Your task to perform on an android device: toggle notifications settings in the gmail app Image 0: 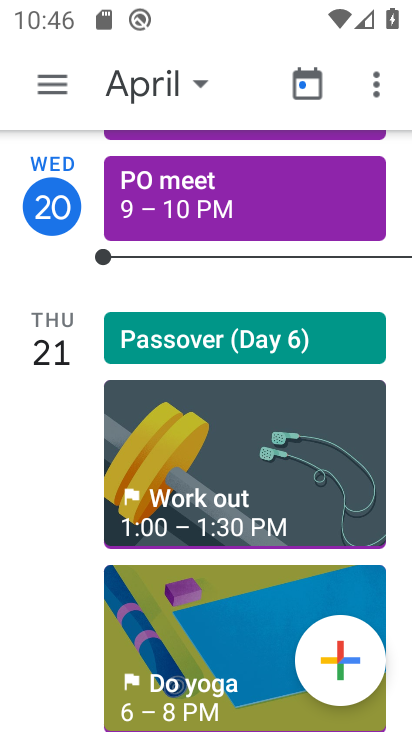
Step 0: press home button
Your task to perform on an android device: toggle notifications settings in the gmail app Image 1: 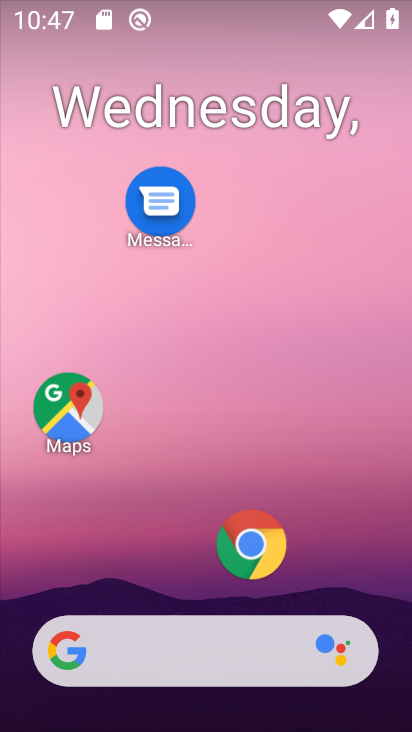
Step 1: drag from (190, 582) to (206, 179)
Your task to perform on an android device: toggle notifications settings in the gmail app Image 2: 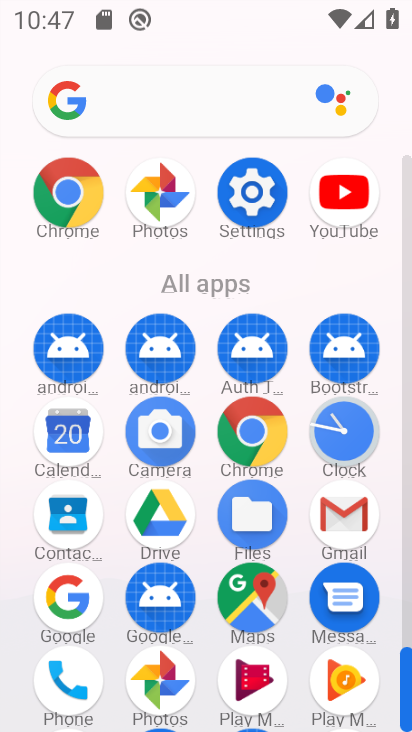
Step 2: click (328, 498)
Your task to perform on an android device: toggle notifications settings in the gmail app Image 3: 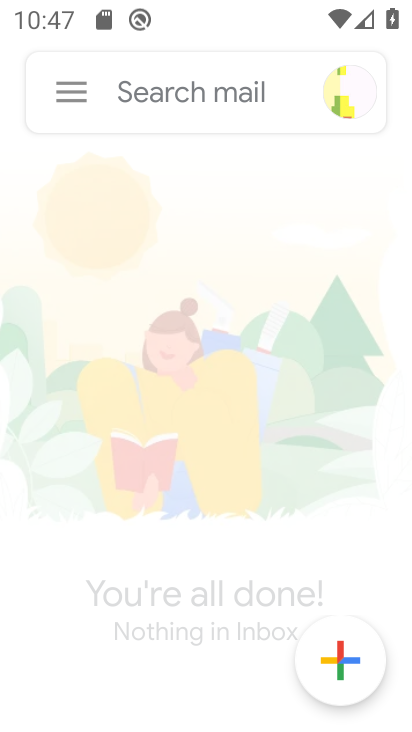
Step 3: click (76, 92)
Your task to perform on an android device: toggle notifications settings in the gmail app Image 4: 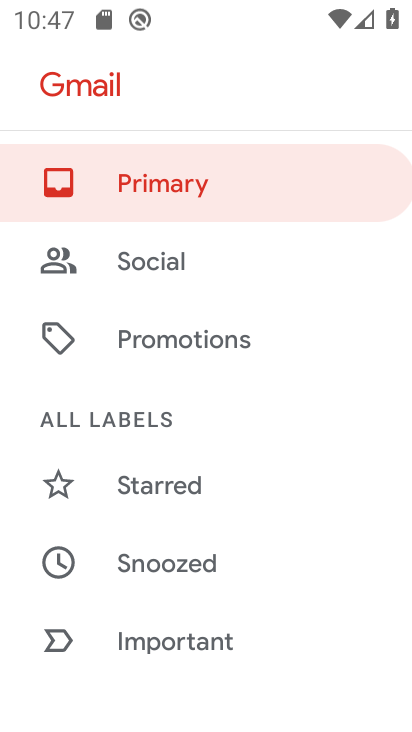
Step 4: drag from (220, 627) to (259, 280)
Your task to perform on an android device: toggle notifications settings in the gmail app Image 5: 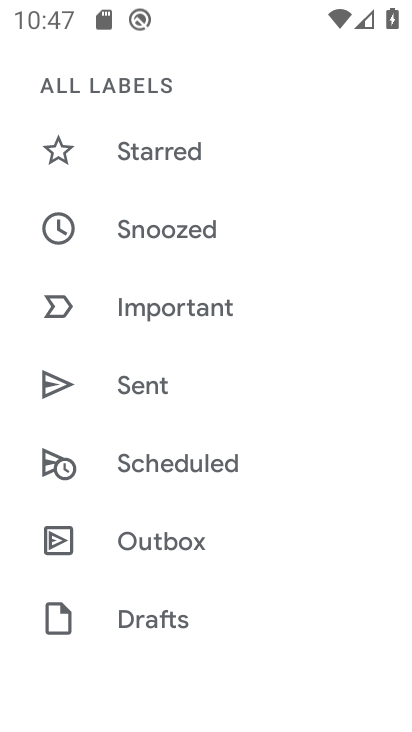
Step 5: drag from (261, 395) to (261, 256)
Your task to perform on an android device: toggle notifications settings in the gmail app Image 6: 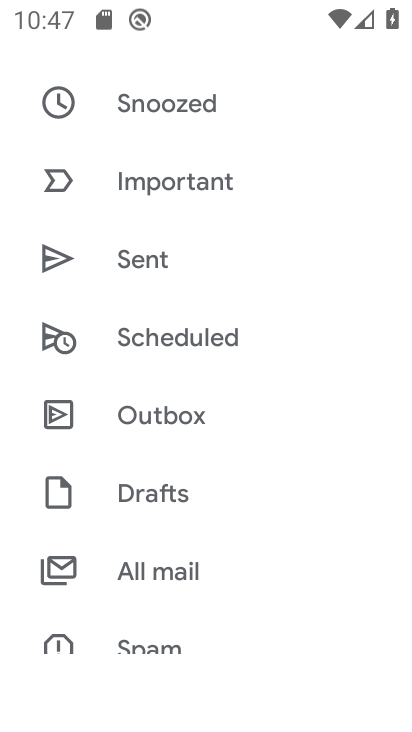
Step 6: drag from (243, 303) to (265, 264)
Your task to perform on an android device: toggle notifications settings in the gmail app Image 7: 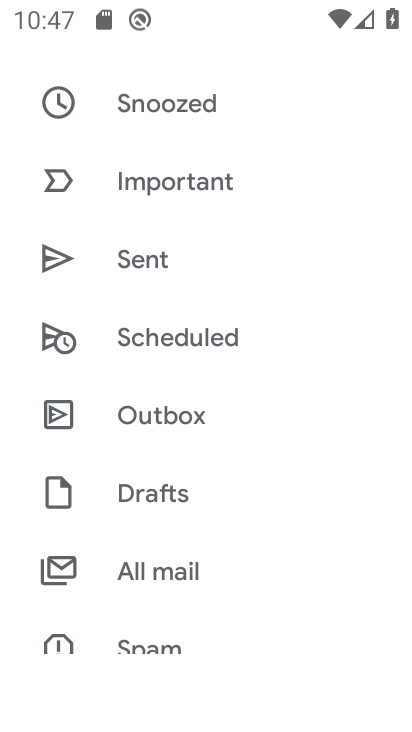
Step 7: drag from (254, 591) to (295, 266)
Your task to perform on an android device: toggle notifications settings in the gmail app Image 8: 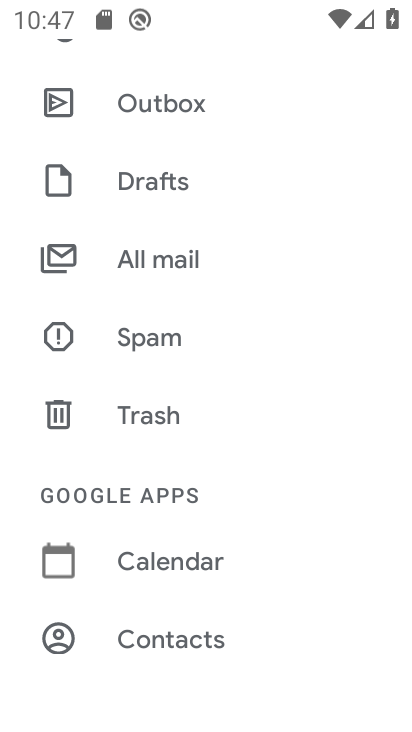
Step 8: drag from (198, 584) to (238, 242)
Your task to perform on an android device: toggle notifications settings in the gmail app Image 9: 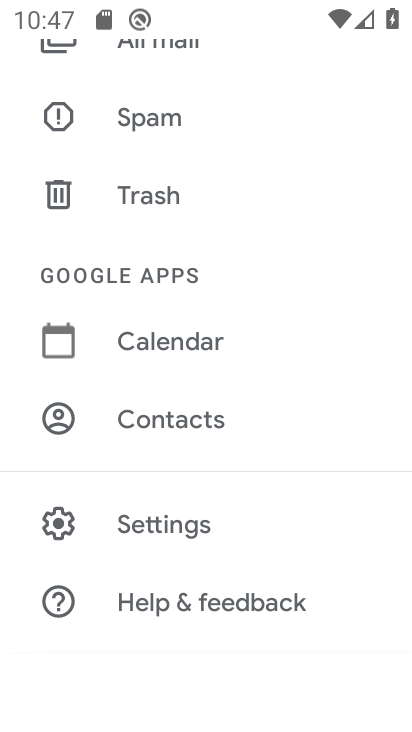
Step 9: click (195, 530)
Your task to perform on an android device: toggle notifications settings in the gmail app Image 10: 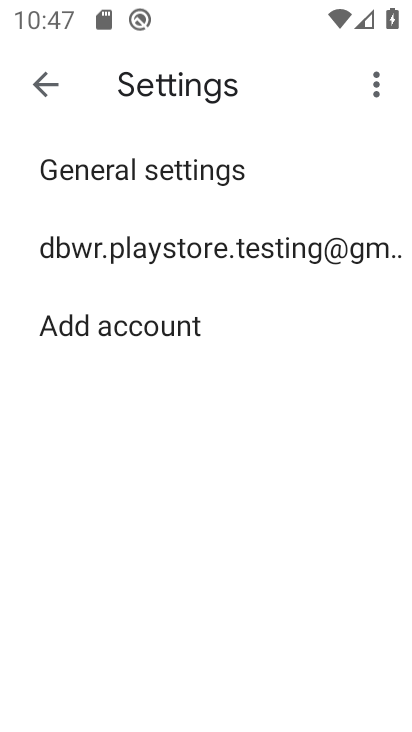
Step 10: click (152, 228)
Your task to perform on an android device: toggle notifications settings in the gmail app Image 11: 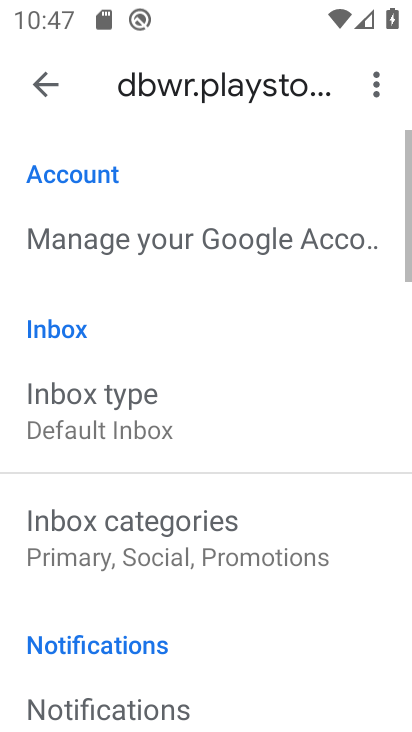
Step 11: drag from (194, 632) to (227, 304)
Your task to perform on an android device: toggle notifications settings in the gmail app Image 12: 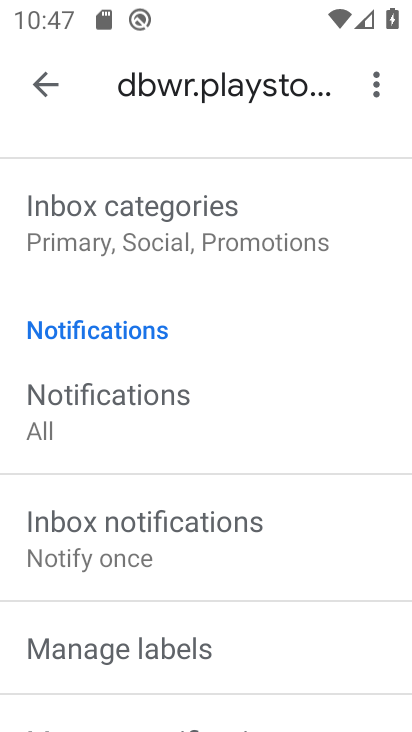
Step 12: drag from (213, 595) to (229, 373)
Your task to perform on an android device: toggle notifications settings in the gmail app Image 13: 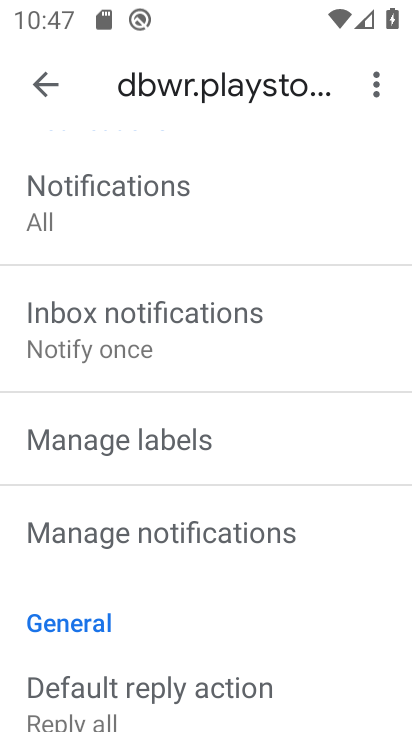
Step 13: drag from (183, 595) to (210, 504)
Your task to perform on an android device: toggle notifications settings in the gmail app Image 14: 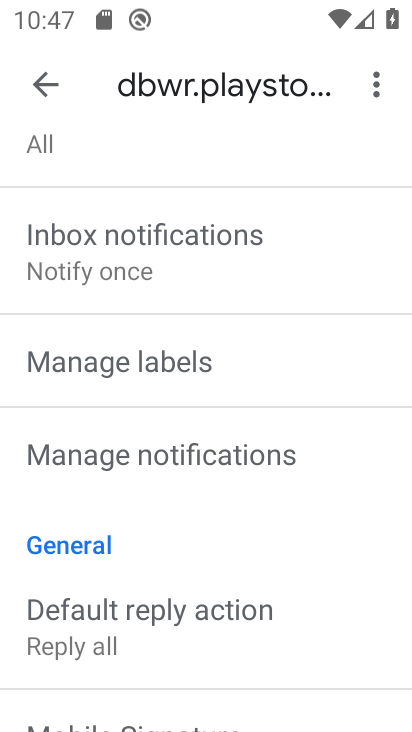
Step 14: click (188, 468)
Your task to perform on an android device: toggle notifications settings in the gmail app Image 15: 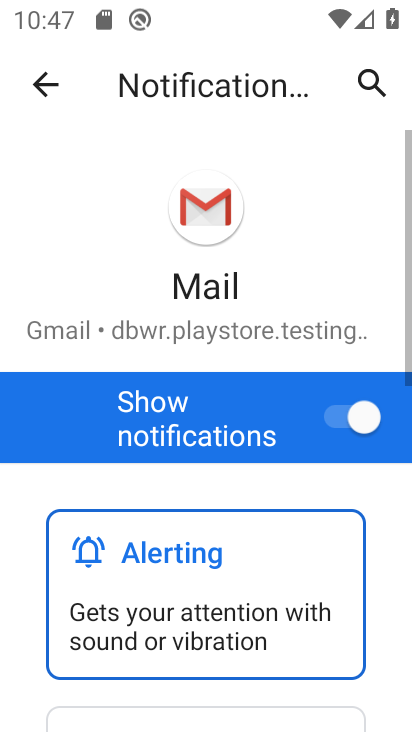
Step 15: click (340, 416)
Your task to perform on an android device: toggle notifications settings in the gmail app Image 16: 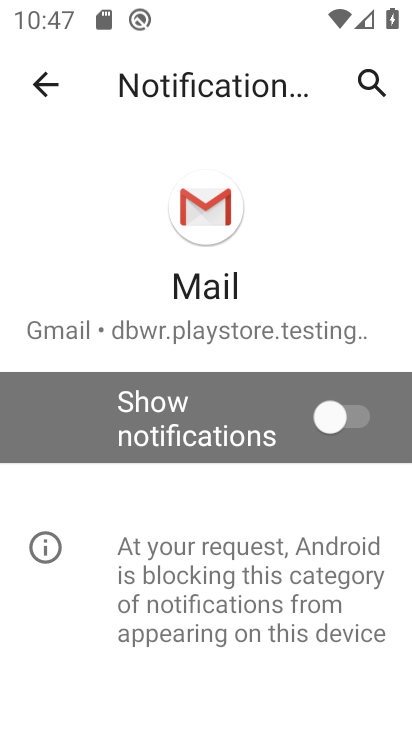
Step 16: task complete